Your task to perform on an android device: Open the map Image 0: 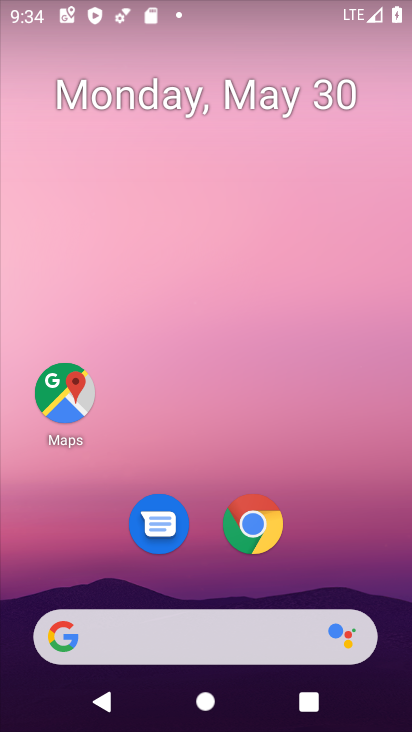
Step 0: click (61, 382)
Your task to perform on an android device: Open the map Image 1: 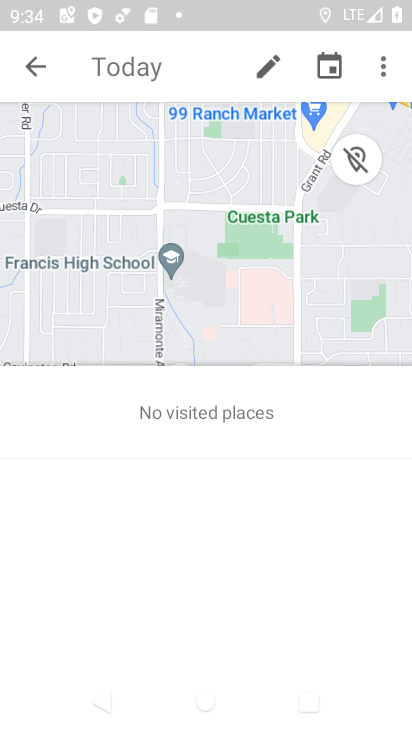
Step 1: click (36, 57)
Your task to perform on an android device: Open the map Image 2: 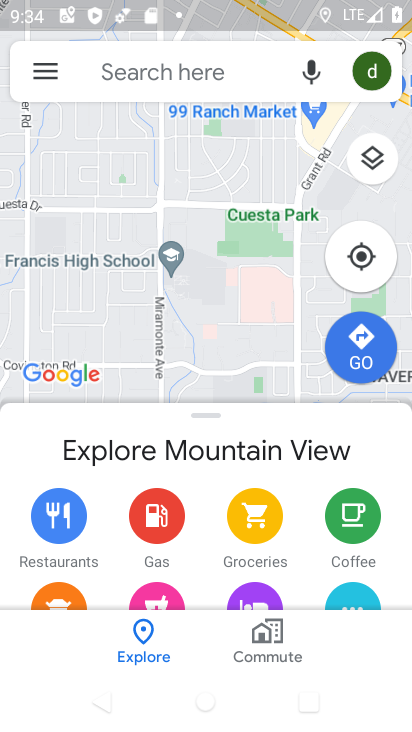
Step 2: task complete